Your task to perform on an android device: turn off priority inbox in the gmail app Image 0: 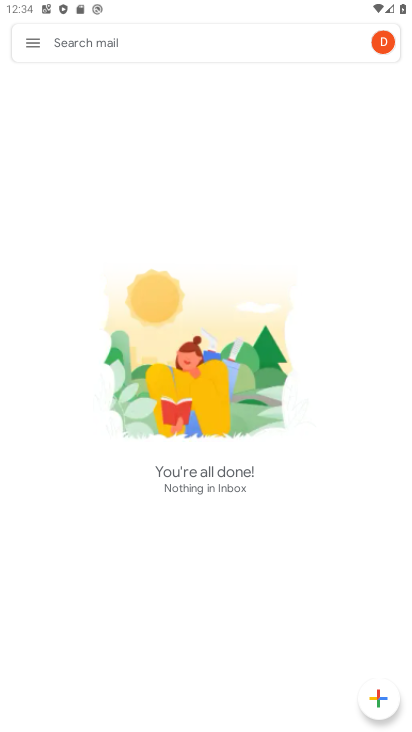
Step 0: click (29, 45)
Your task to perform on an android device: turn off priority inbox in the gmail app Image 1: 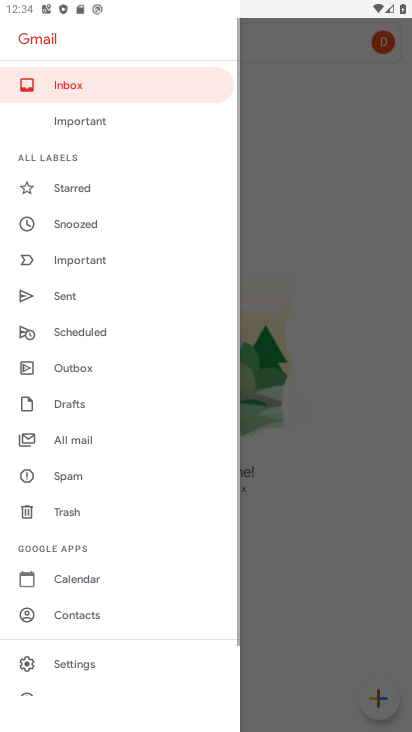
Step 1: drag from (100, 630) to (173, 223)
Your task to perform on an android device: turn off priority inbox in the gmail app Image 2: 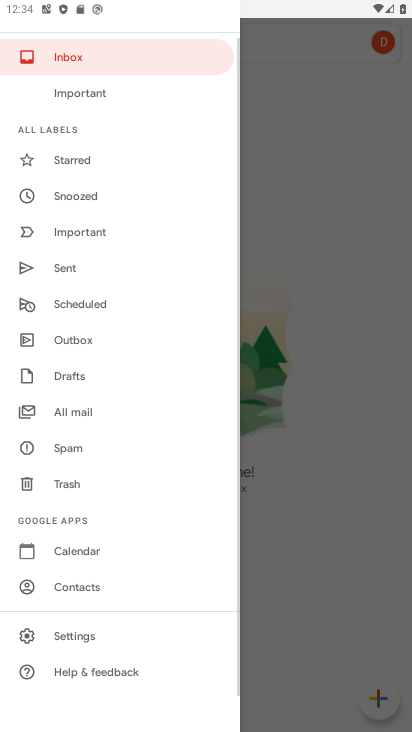
Step 2: click (95, 636)
Your task to perform on an android device: turn off priority inbox in the gmail app Image 3: 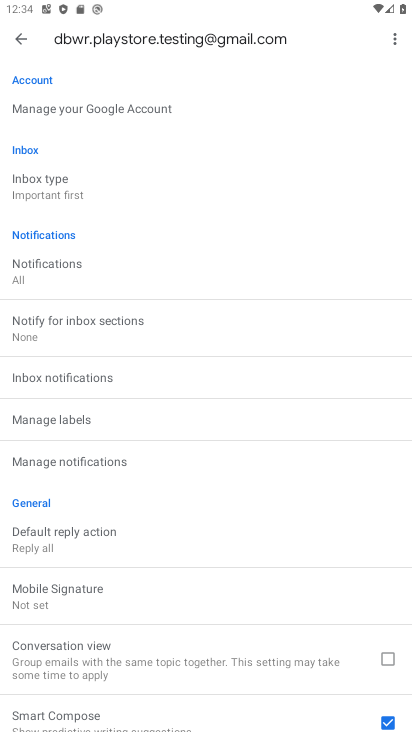
Step 3: click (60, 195)
Your task to perform on an android device: turn off priority inbox in the gmail app Image 4: 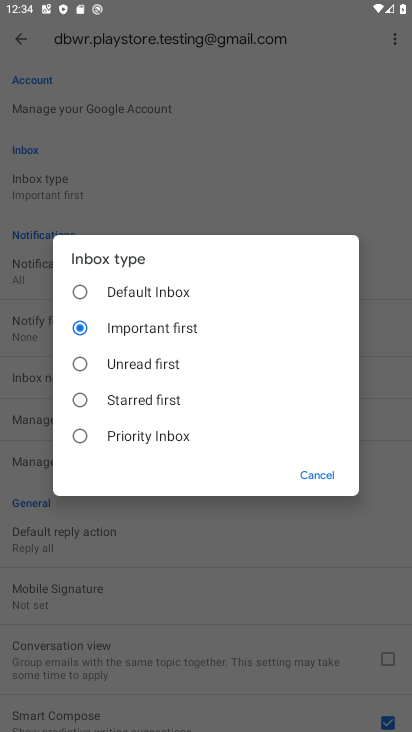
Step 4: task complete